Your task to perform on an android device: check the backup settings in the google photos Image 0: 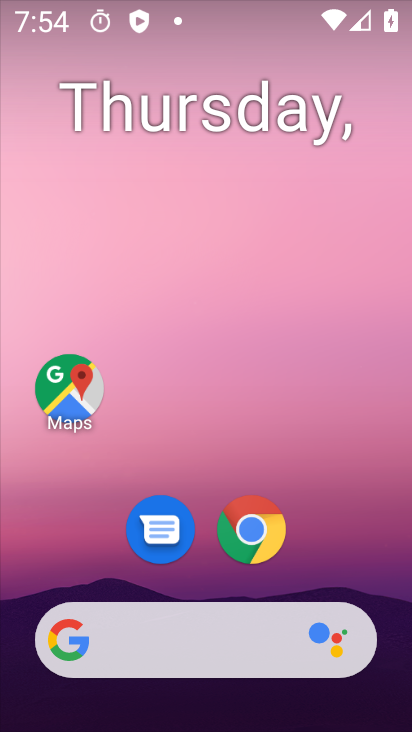
Step 0: drag from (395, 714) to (383, 25)
Your task to perform on an android device: check the backup settings in the google photos Image 1: 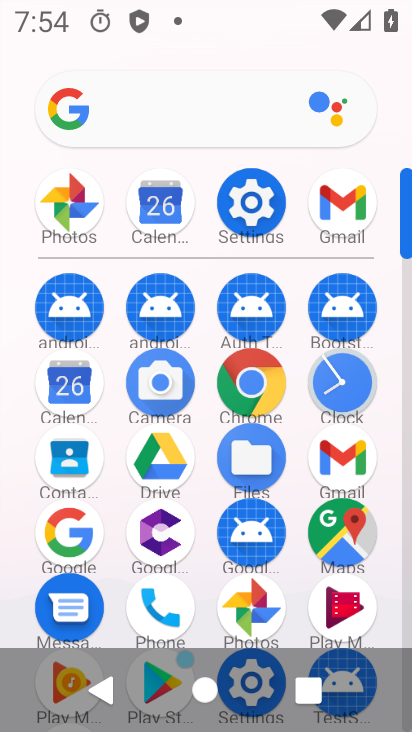
Step 1: click (65, 208)
Your task to perform on an android device: check the backup settings in the google photos Image 2: 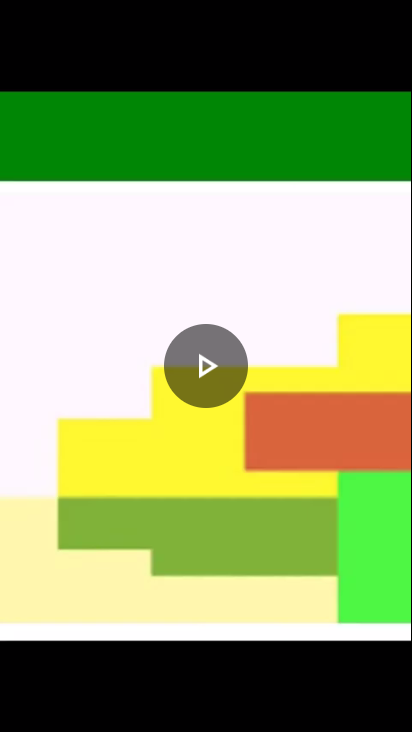
Step 2: press back button
Your task to perform on an android device: check the backup settings in the google photos Image 3: 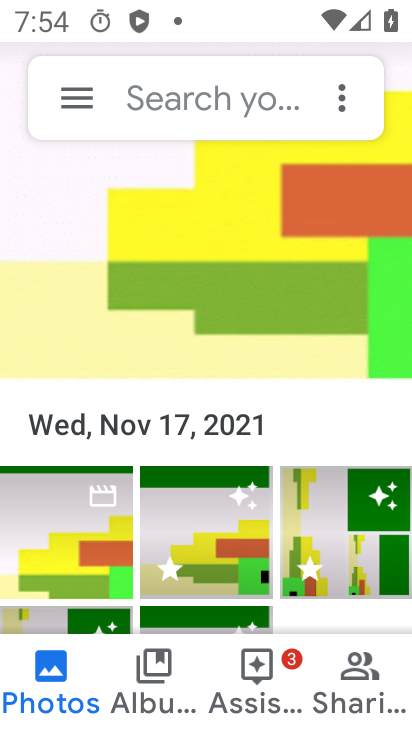
Step 3: drag from (363, 610) to (334, 200)
Your task to perform on an android device: check the backup settings in the google photos Image 4: 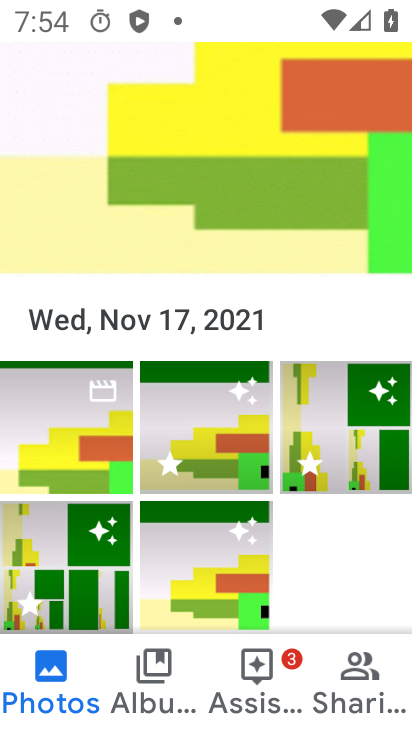
Step 4: drag from (313, 603) to (335, 359)
Your task to perform on an android device: check the backup settings in the google photos Image 5: 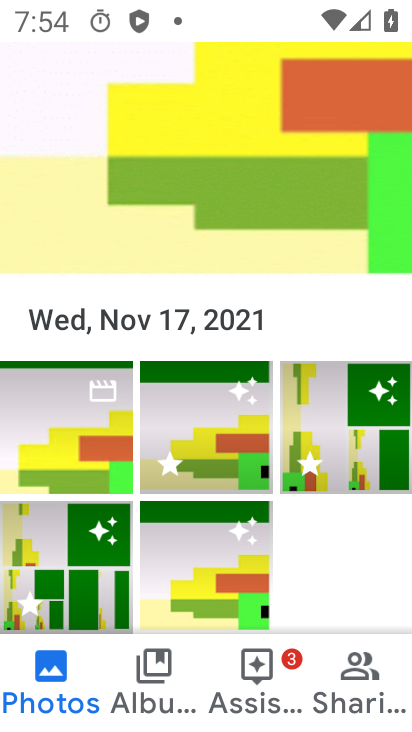
Step 5: click (70, 453)
Your task to perform on an android device: check the backup settings in the google photos Image 6: 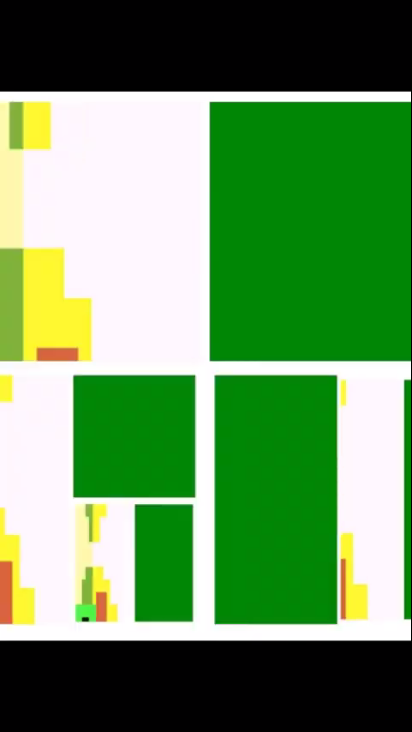
Step 6: press back button
Your task to perform on an android device: check the backup settings in the google photos Image 7: 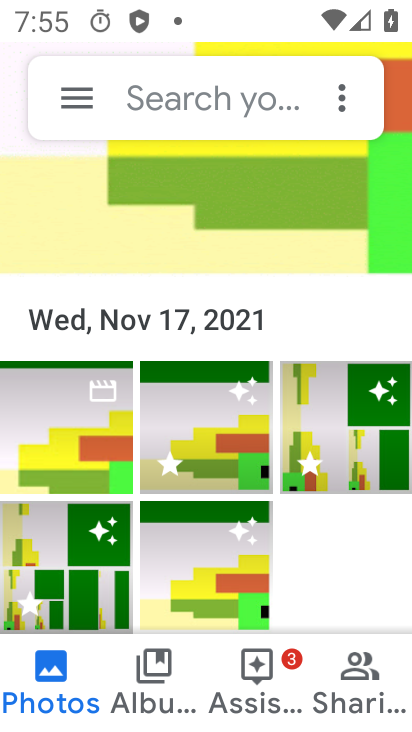
Step 7: click (64, 93)
Your task to perform on an android device: check the backup settings in the google photos Image 8: 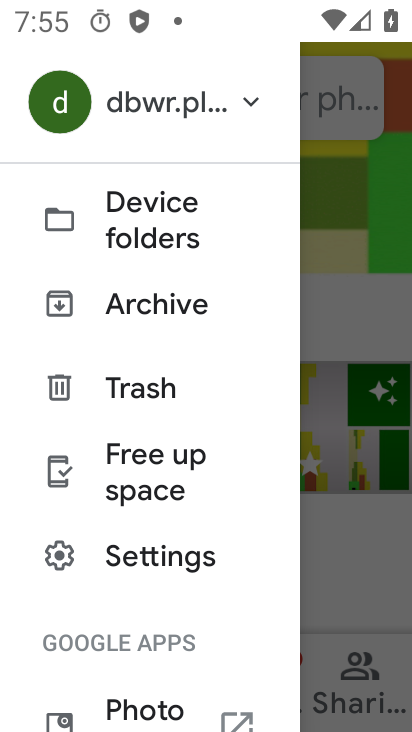
Step 8: click (148, 553)
Your task to perform on an android device: check the backup settings in the google photos Image 9: 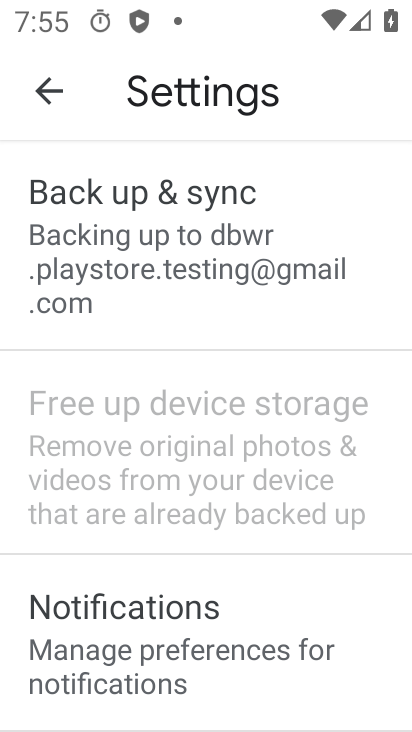
Step 9: click (109, 229)
Your task to perform on an android device: check the backup settings in the google photos Image 10: 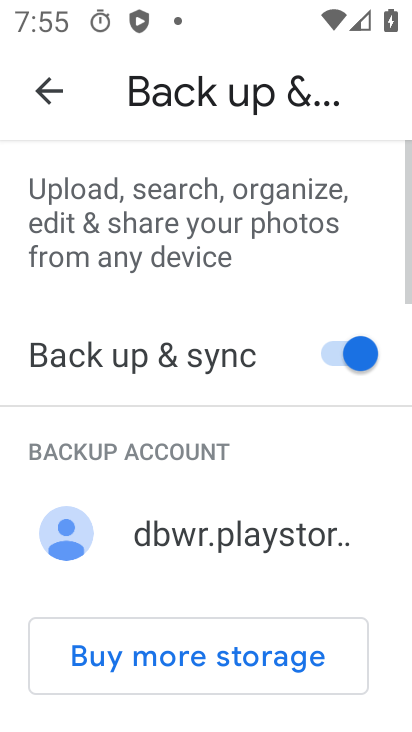
Step 10: task complete